Your task to perform on an android device: check google app version Image 0: 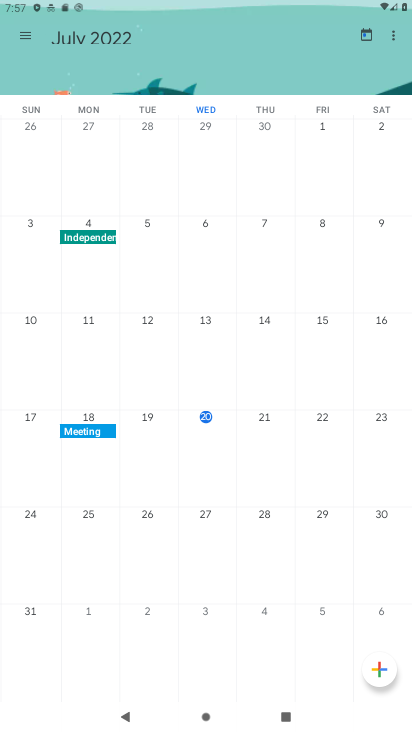
Step 0: press back button
Your task to perform on an android device: check google app version Image 1: 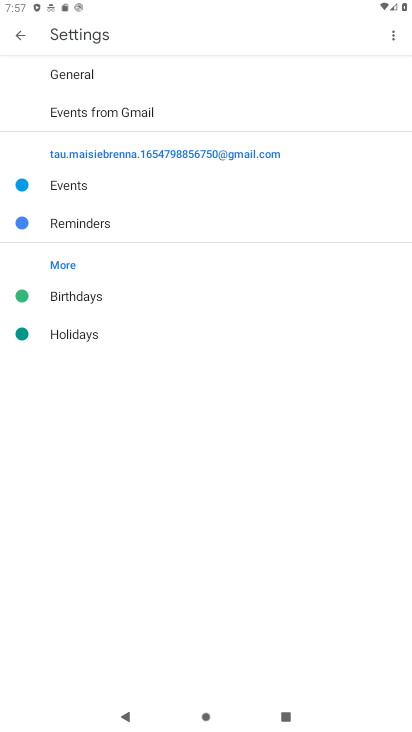
Step 1: click (21, 36)
Your task to perform on an android device: check google app version Image 2: 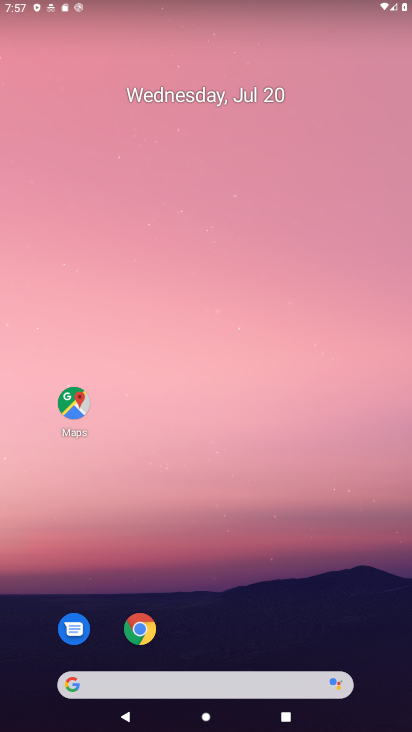
Step 2: drag from (246, 700) to (242, 350)
Your task to perform on an android device: check google app version Image 3: 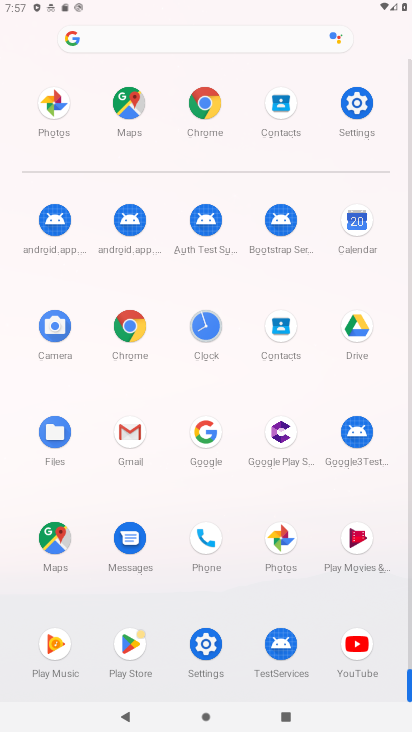
Step 3: click (203, 430)
Your task to perform on an android device: check google app version Image 4: 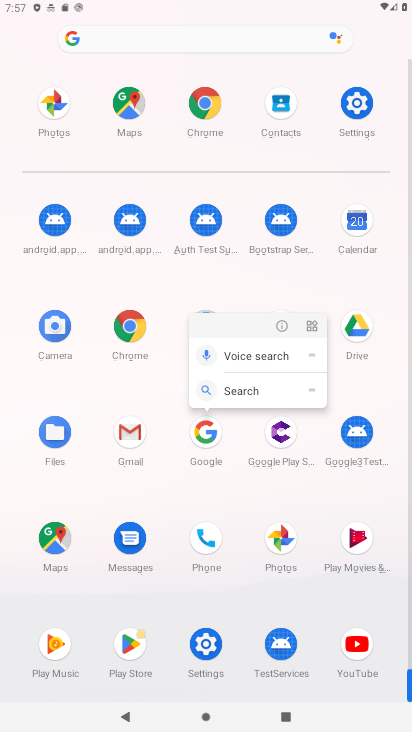
Step 4: click (205, 426)
Your task to perform on an android device: check google app version Image 5: 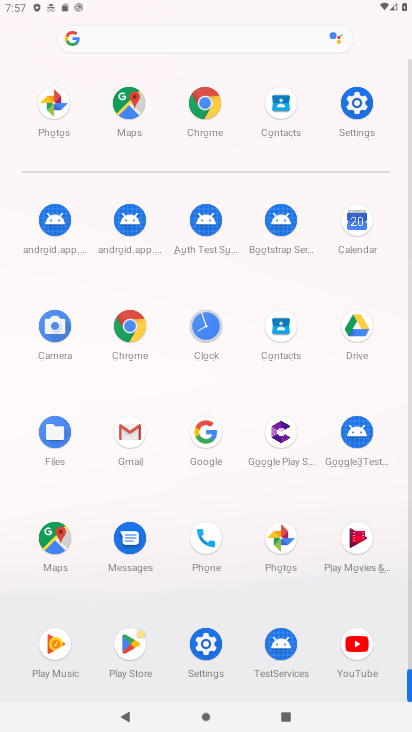
Step 5: click (205, 426)
Your task to perform on an android device: check google app version Image 6: 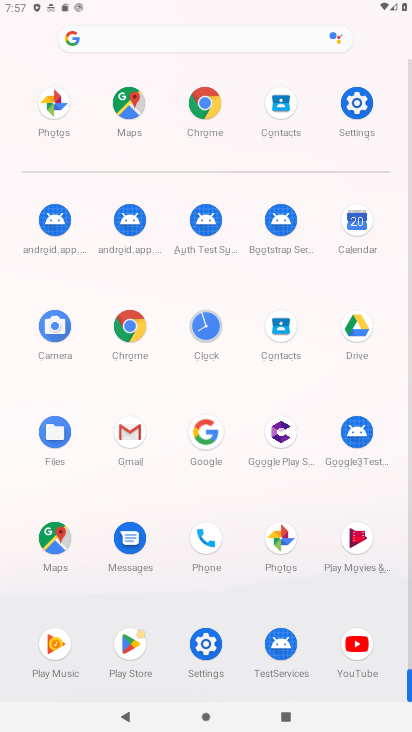
Step 6: click (205, 427)
Your task to perform on an android device: check google app version Image 7: 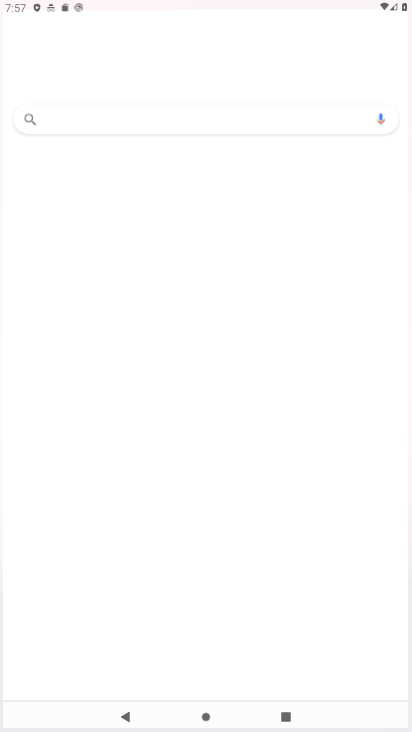
Step 7: click (206, 430)
Your task to perform on an android device: check google app version Image 8: 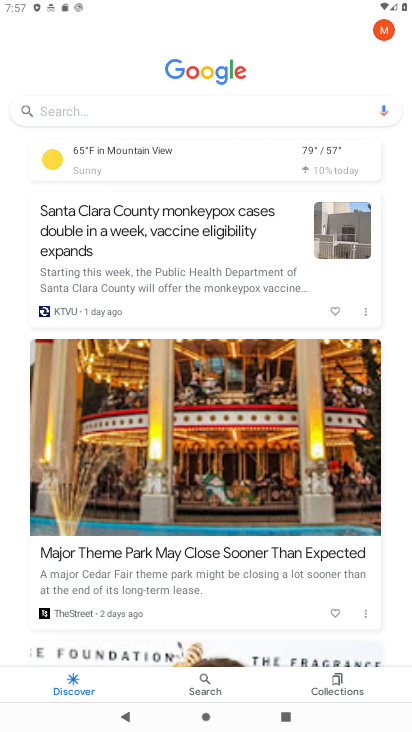
Step 8: drag from (226, 572) to (256, 157)
Your task to perform on an android device: check google app version Image 9: 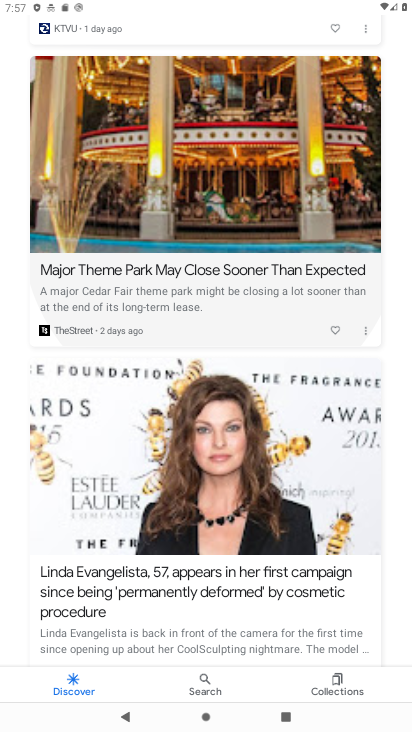
Step 9: drag from (281, 548) to (311, 227)
Your task to perform on an android device: check google app version Image 10: 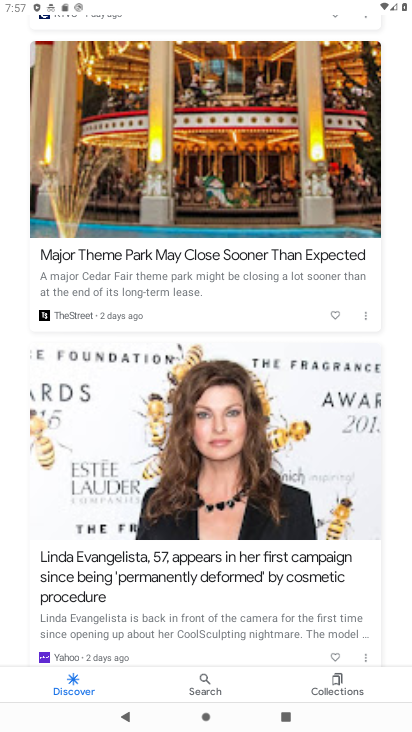
Step 10: drag from (171, 180) to (214, 579)
Your task to perform on an android device: check google app version Image 11: 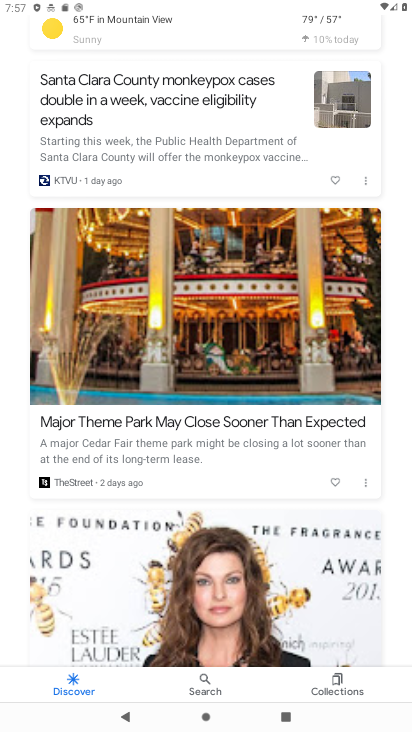
Step 11: drag from (288, 219) to (325, 672)
Your task to perform on an android device: check google app version Image 12: 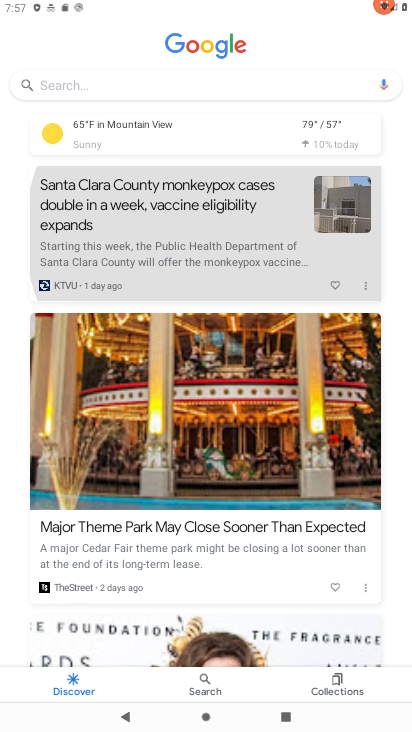
Step 12: drag from (313, 187) to (339, 536)
Your task to perform on an android device: check google app version Image 13: 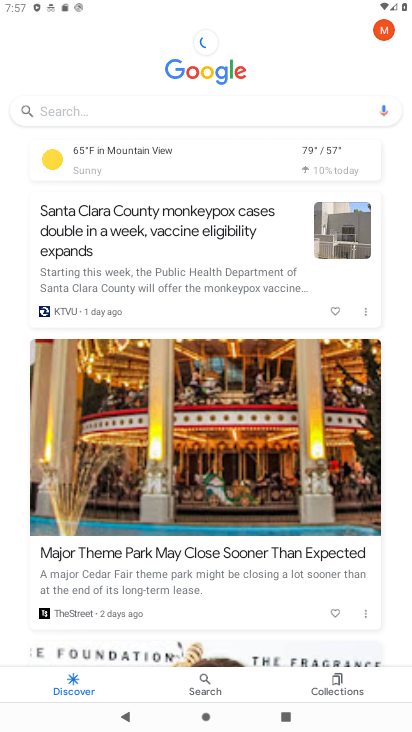
Step 13: drag from (387, 75) to (376, 410)
Your task to perform on an android device: check google app version Image 14: 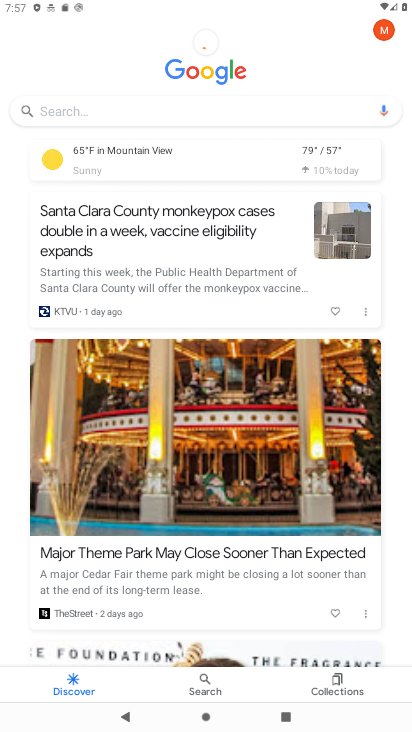
Step 14: drag from (377, 26) to (380, 320)
Your task to perform on an android device: check google app version Image 15: 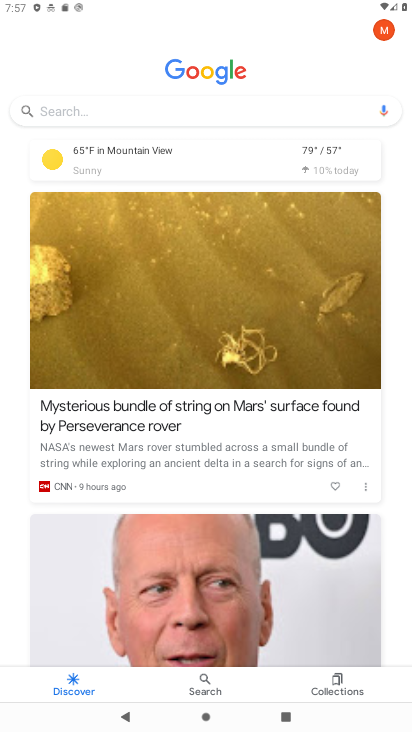
Step 15: drag from (385, 32) to (333, 199)
Your task to perform on an android device: check google app version Image 16: 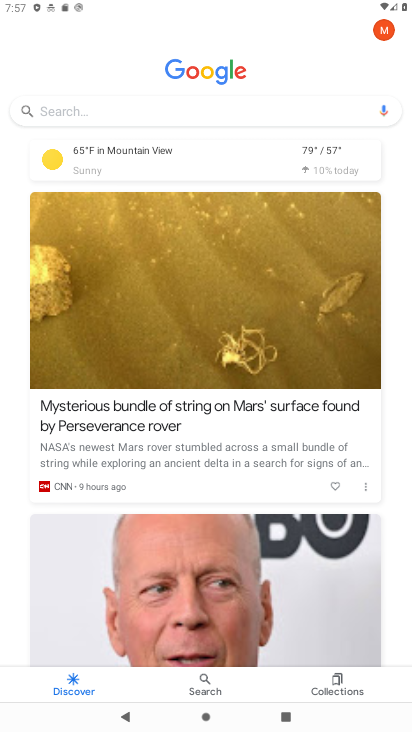
Step 16: click (371, 30)
Your task to perform on an android device: check google app version Image 17: 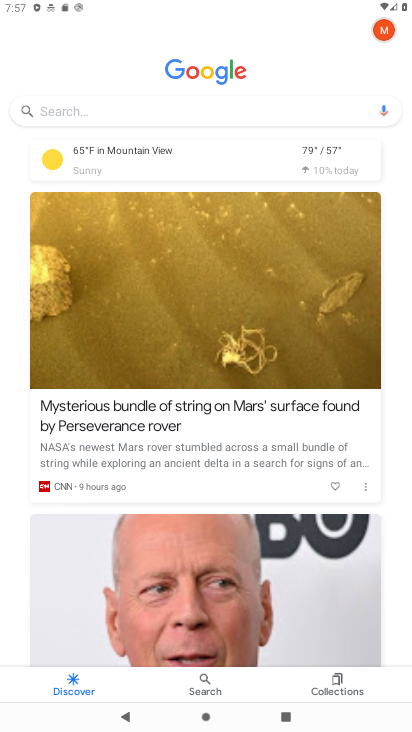
Step 17: click (378, 33)
Your task to perform on an android device: check google app version Image 18: 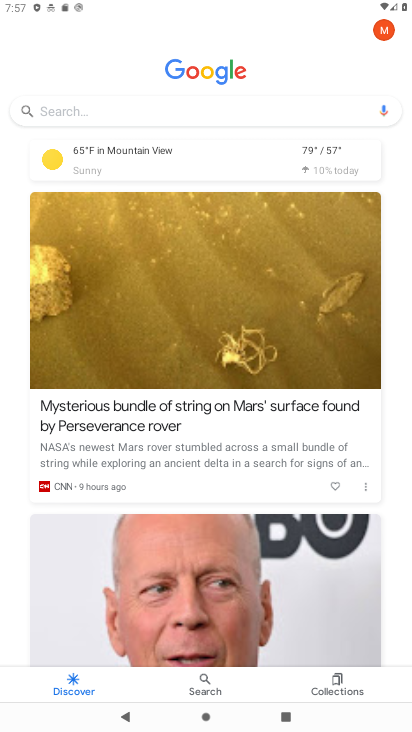
Step 18: drag from (379, 34) to (358, 300)
Your task to perform on an android device: check google app version Image 19: 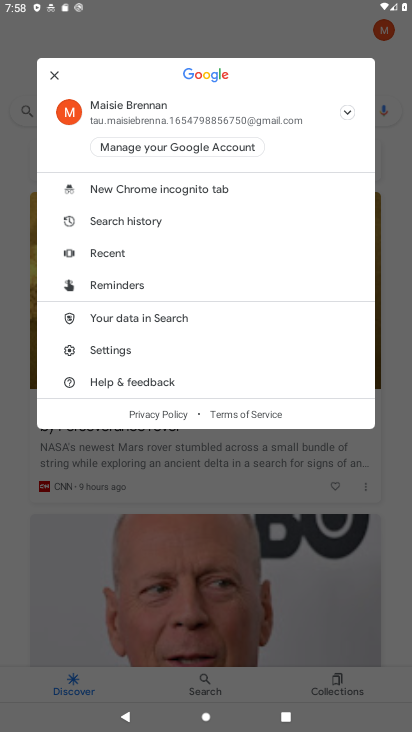
Step 19: click (397, 39)
Your task to perform on an android device: check google app version Image 20: 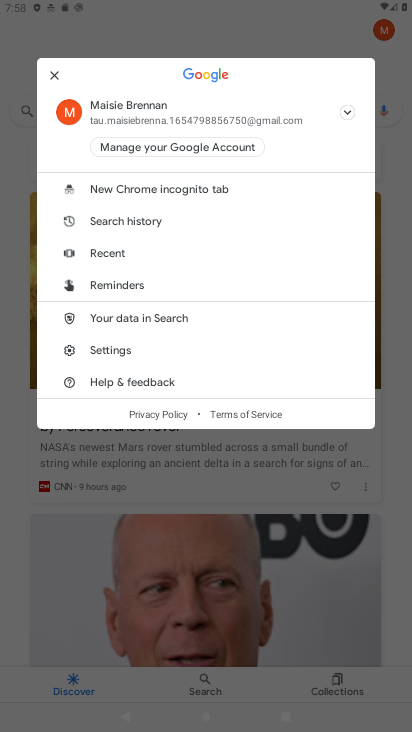
Step 20: click (394, 31)
Your task to perform on an android device: check google app version Image 21: 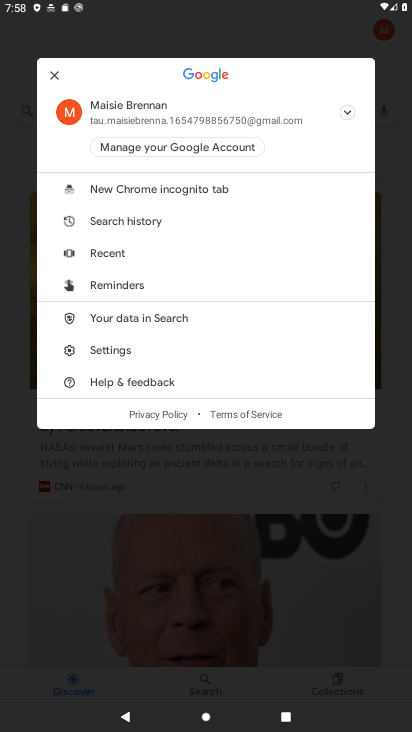
Step 21: click (107, 342)
Your task to perform on an android device: check google app version Image 22: 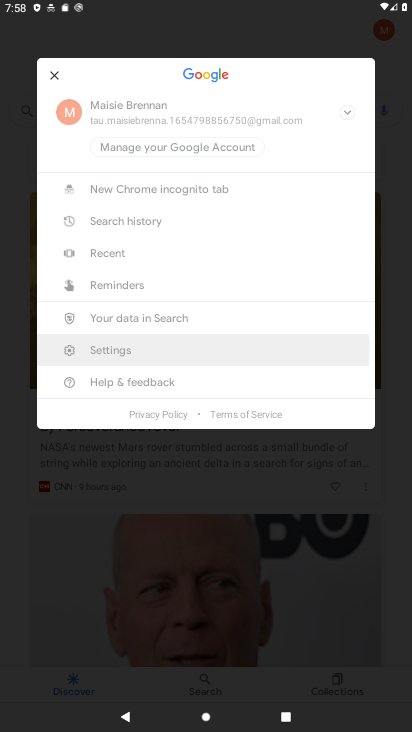
Step 22: click (107, 341)
Your task to perform on an android device: check google app version Image 23: 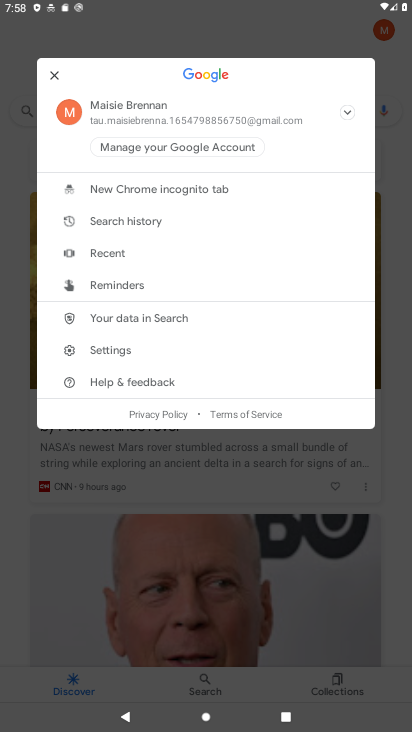
Step 23: click (104, 343)
Your task to perform on an android device: check google app version Image 24: 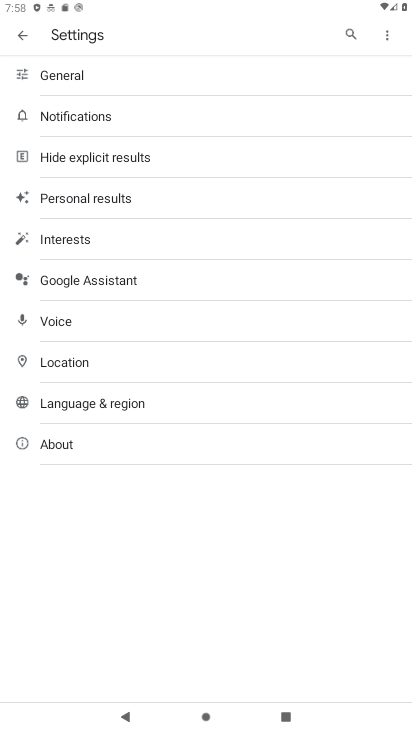
Step 24: click (79, 447)
Your task to perform on an android device: check google app version Image 25: 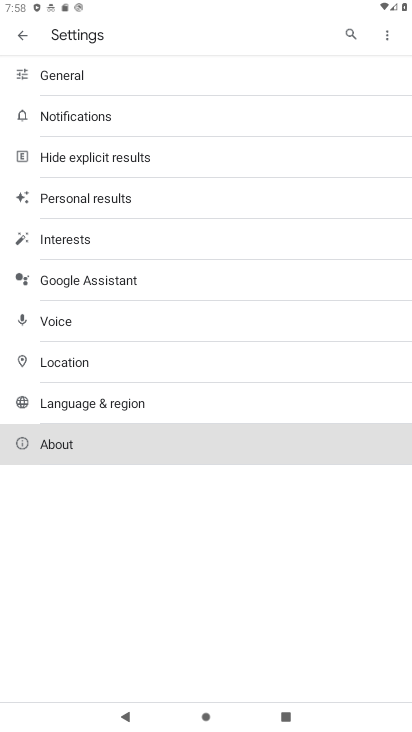
Step 25: click (81, 444)
Your task to perform on an android device: check google app version Image 26: 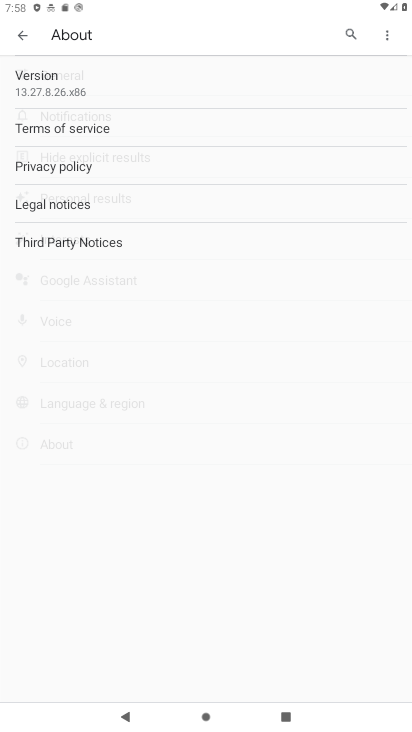
Step 26: click (85, 447)
Your task to perform on an android device: check google app version Image 27: 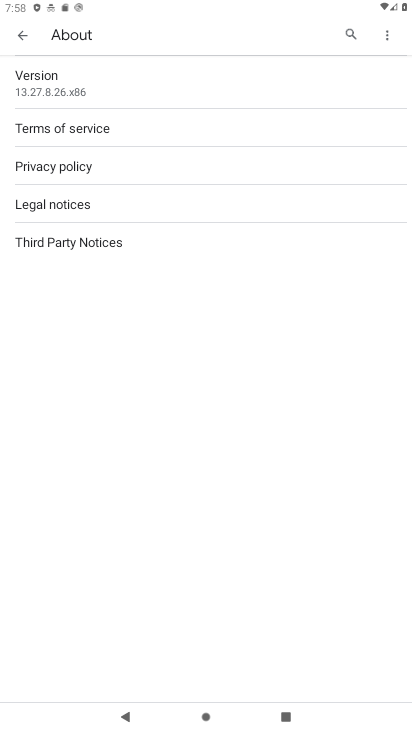
Step 27: click (50, 80)
Your task to perform on an android device: check google app version Image 28: 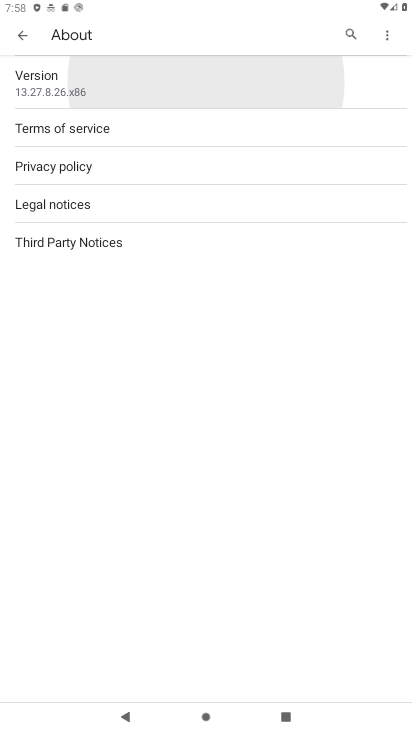
Step 28: click (49, 81)
Your task to perform on an android device: check google app version Image 29: 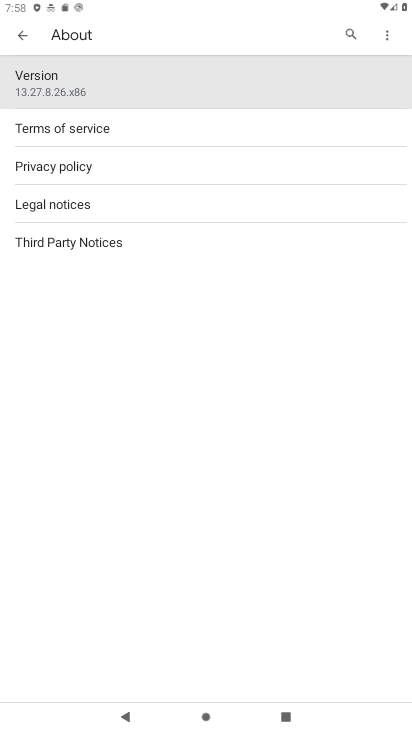
Step 29: click (50, 82)
Your task to perform on an android device: check google app version Image 30: 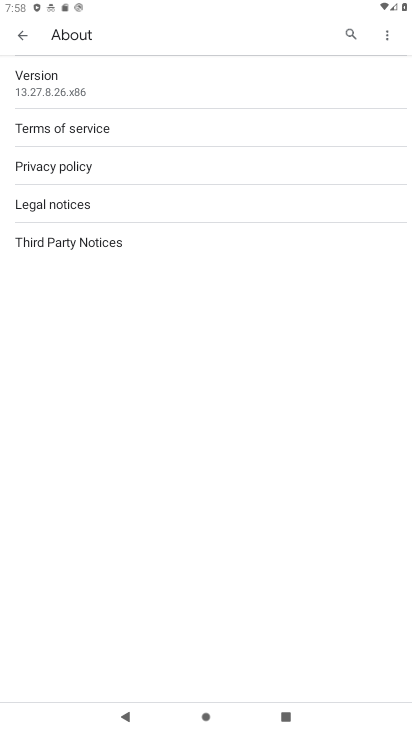
Step 30: task complete